Your task to perform on an android device: open the mobile data screen to see how much data has been used Image 0: 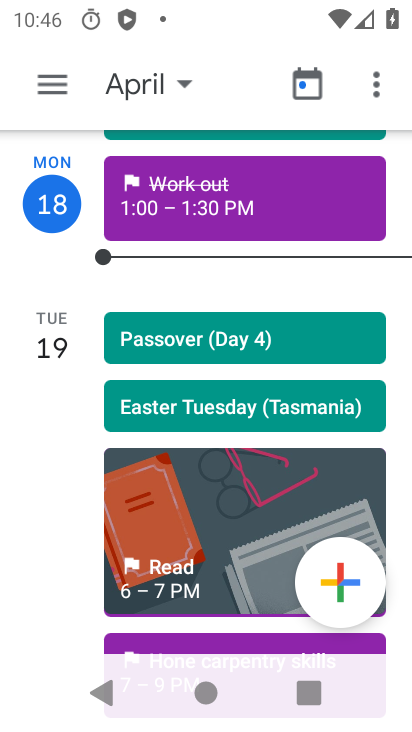
Step 0: press home button
Your task to perform on an android device: open the mobile data screen to see how much data has been used Image 1: 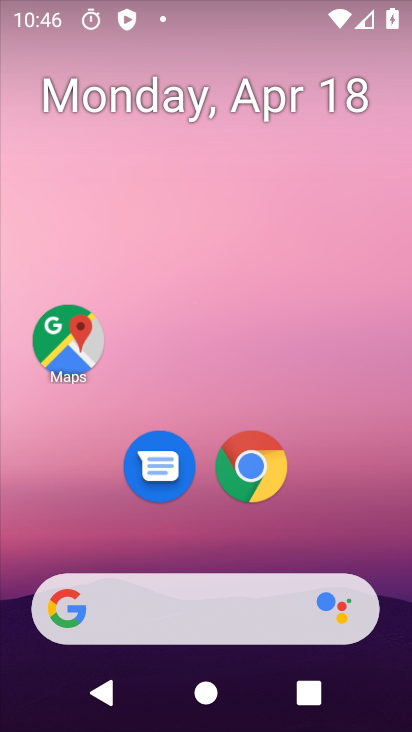
Step 1: drag from (147, 566) to (128, 289)
Your task to perform on an android device: open the mobile data screen to see how much data has been used Image 2: 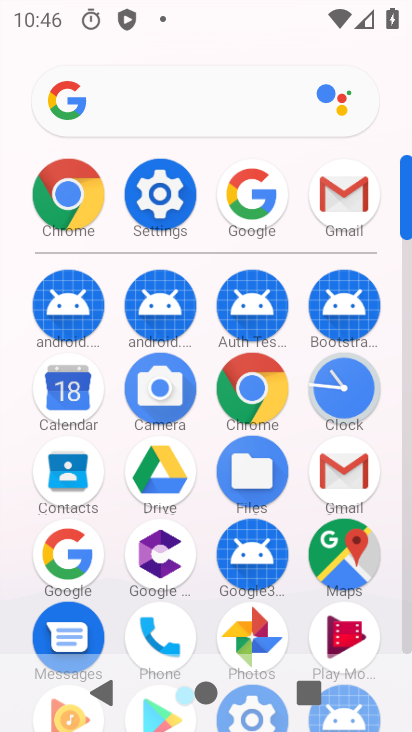
Step 2: click (160, 179)
Your task to perform on an android device: open the mobile data screen to see how much data has been used Image 3: 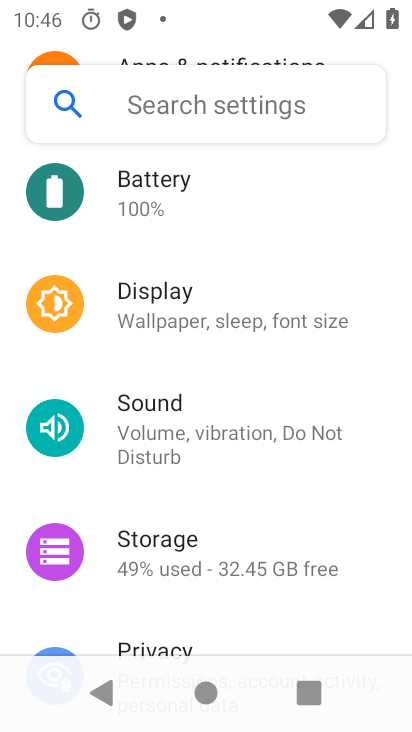
Step 3: click (408, 178)
Your task to perform on an android device: open the mobile data screen to see how much data has been used Image 4: 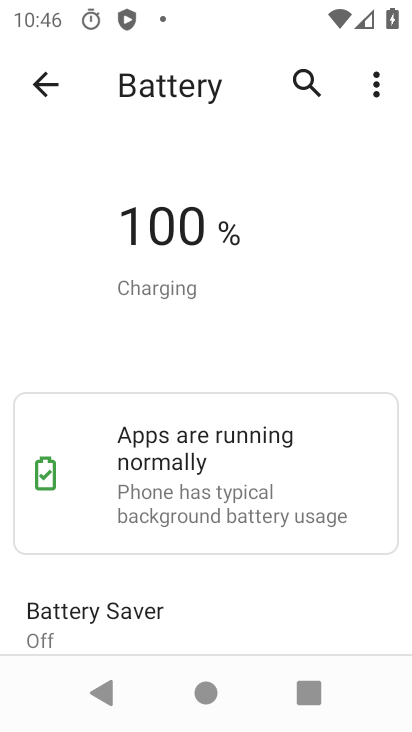
Step 4: click (70, 85)
Your task to perform on an android device: open the mobile data screen to see how much data has been used Image 5: 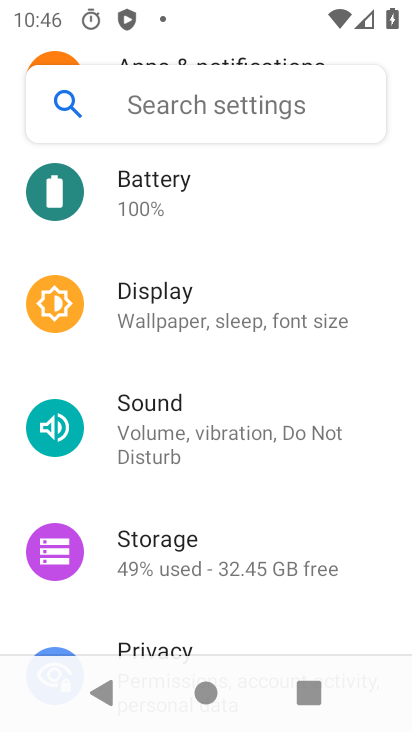
Step 5: drag from (133, 289) to (120, 718)
Your task to perform on an android device: open the mobile data screen to see how much data has been used Image 6: 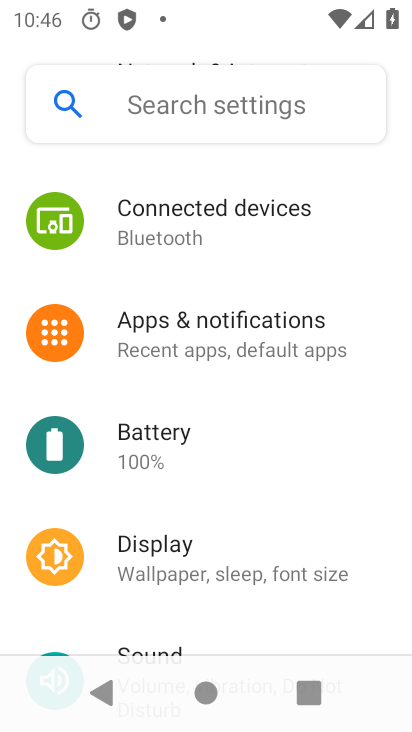
Step 6: drag from (230, 286) to (161, 686)
Your task to perform on an android device: open the mobile data screen to see how much data has been used Image 7: 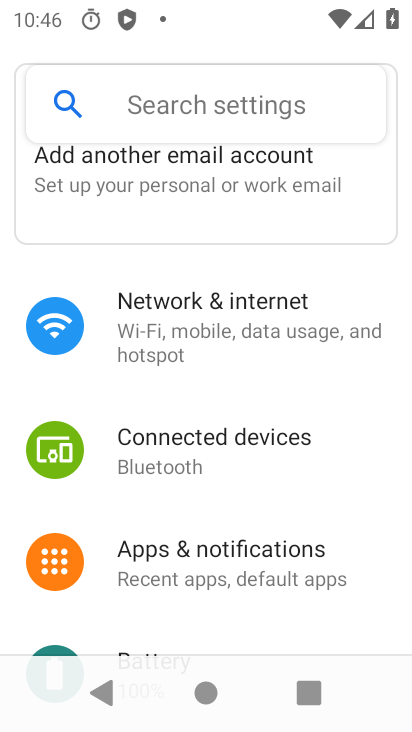
Step 7: click (211, 345)
Your task to perform on an android device: open the mobile data screen to see how much data has been used Image 8: 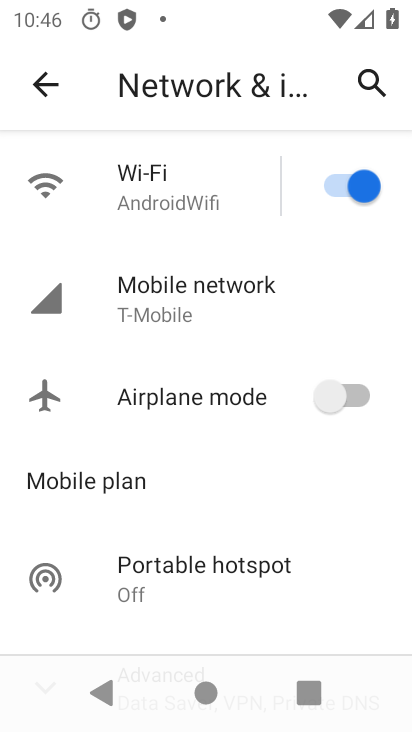
Step 8: click (194, 310)
Your task to perform on an android device: open the mobile data screen to see how much data has been used Image 9: 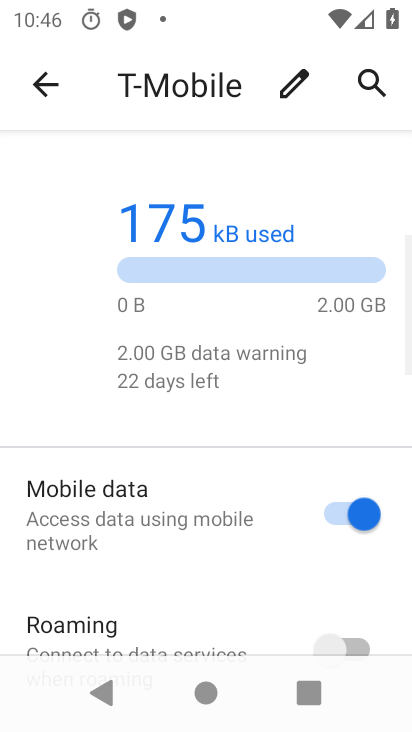
Step 9: drag from (194, 480) to (260, 161)
Your task to perform on an android device: open the mobile data screen to see how much data has been used Image 10: 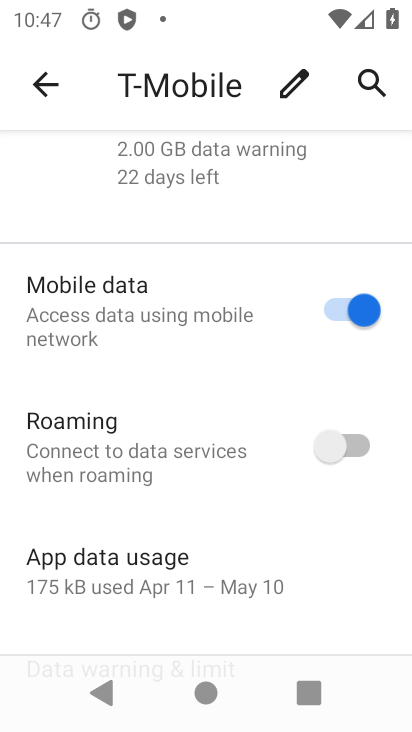
Step 10: drag from (206, 480) to (266, 116)
Your task to perform on an android device: open the mobile data screen to see how much data has been used Image 11: 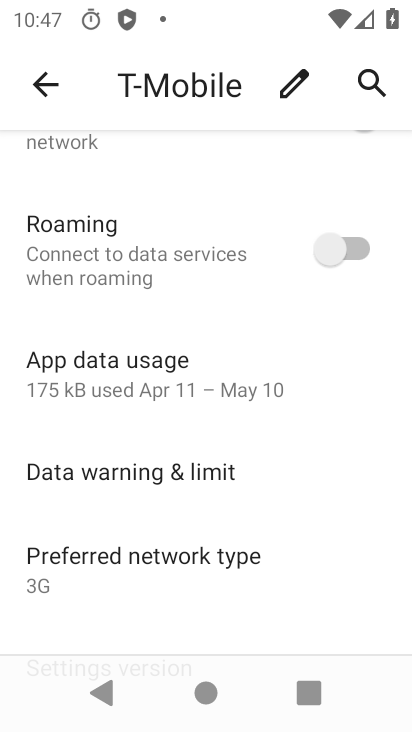
Step 11: click (175, 358)
Your task to perform on an android device: open the mobile data screen to see how much data has been used Image 12: 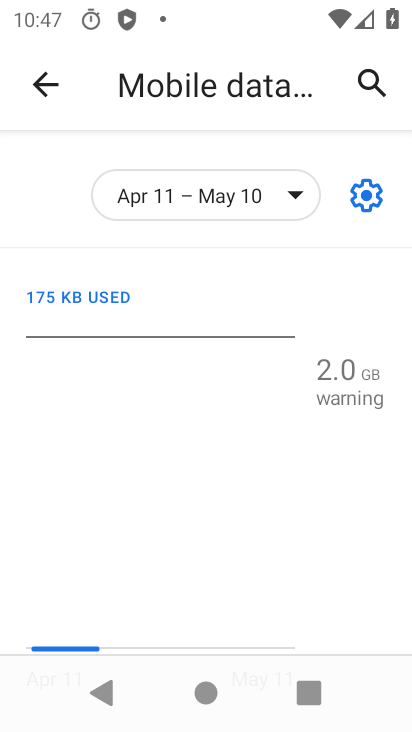
Step 12: task complete